Your task to perform on an android device: Go to Maps Image 0: 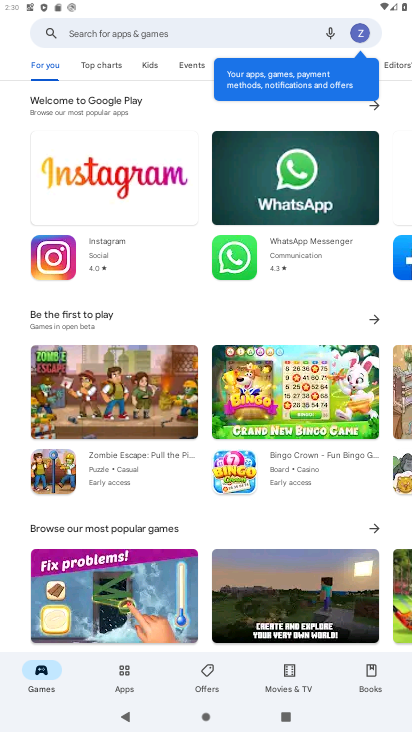
Step 0: press home button
Your task to perform on an android device: Go to Maps Image 1: 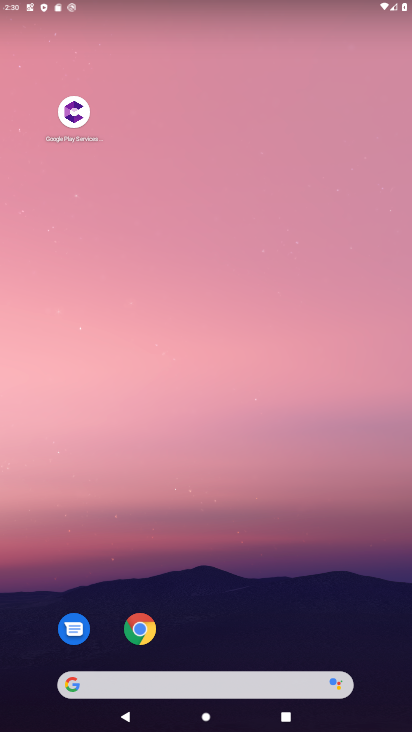
Step 1: drag from (204, 637) to (211, 310)
Your task to perform on an android device: Go to Maps Image 2: 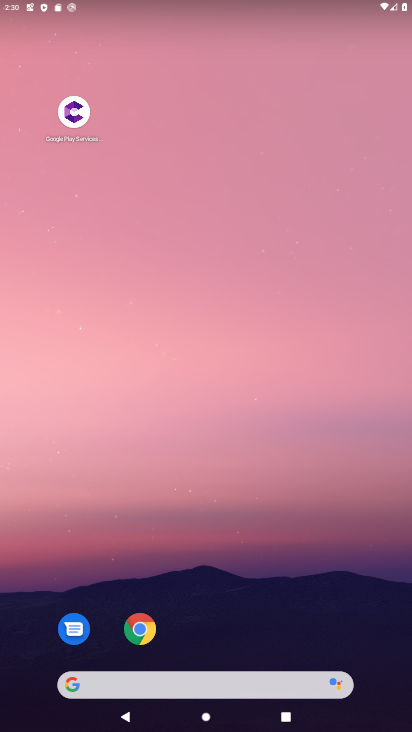
Step 2: drag from (209, 623) to (212, 233)
Your task to perform on an android device: Go to Maps Image 3: 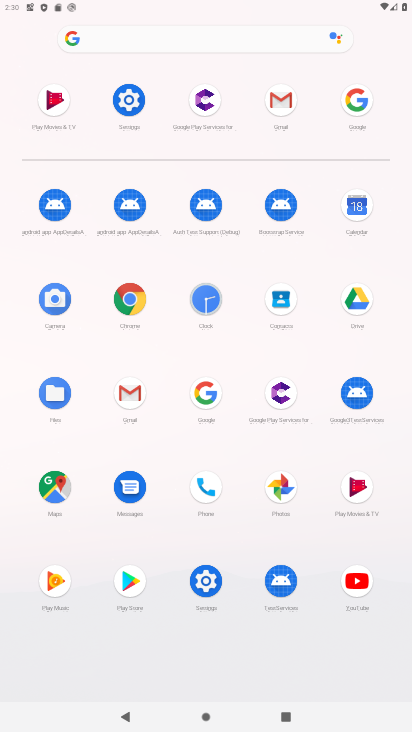
Step 3: click (45, 496)
Your task to perform on an android device: Go to Maps Image 4: 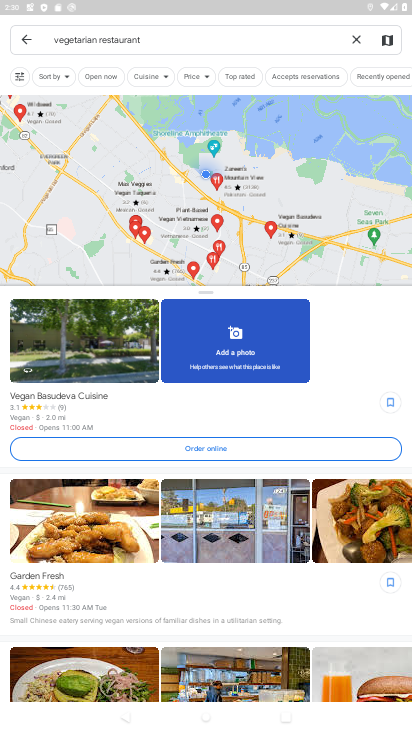
Step 4: task complete